Your task to perform on an android device: toggle airplane mode Image 0: 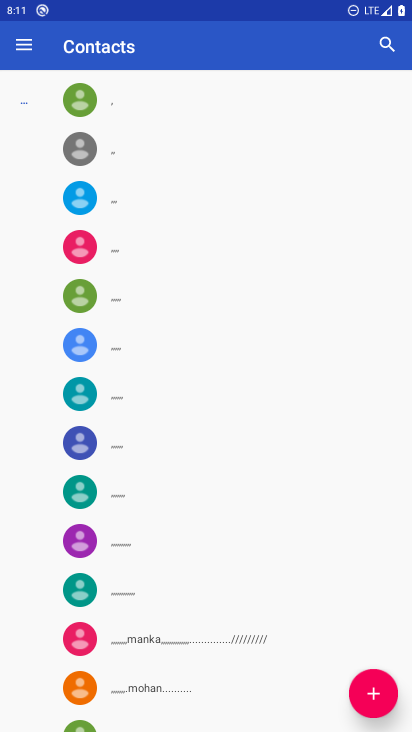
Step 0: press home button
Your task to perform on an android device: toggle airplane mode Image 1: 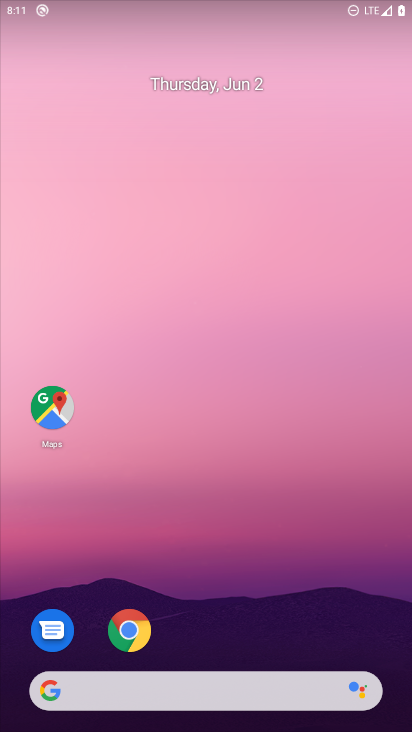
Step 1: drag from (209, 15) to (100, 597)
Your task to perform on an android device: toggle airplane mode Image 2: 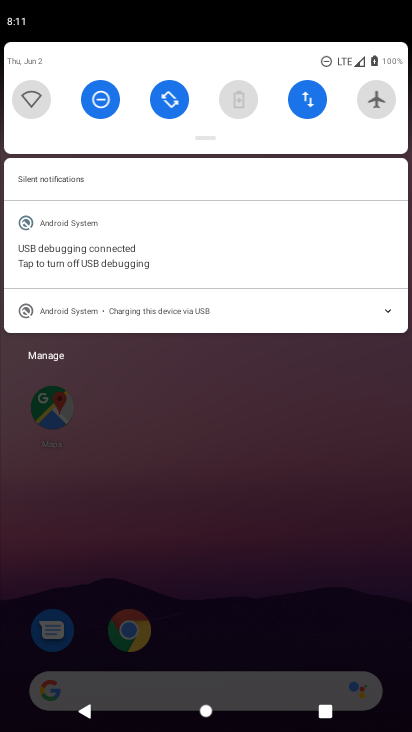
Step 2: click (386, 102)
Your task to perform on an android device: toggle airplane mode Image 3: 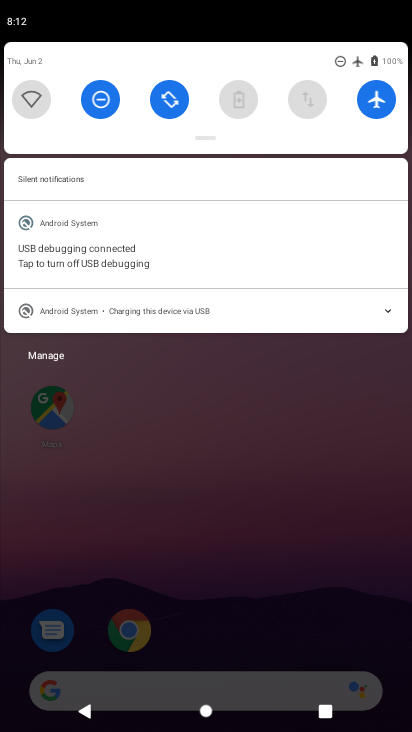
Step 3: task complete